Your task to perform on an android device: turn on javascript in the chrome app Image 0: 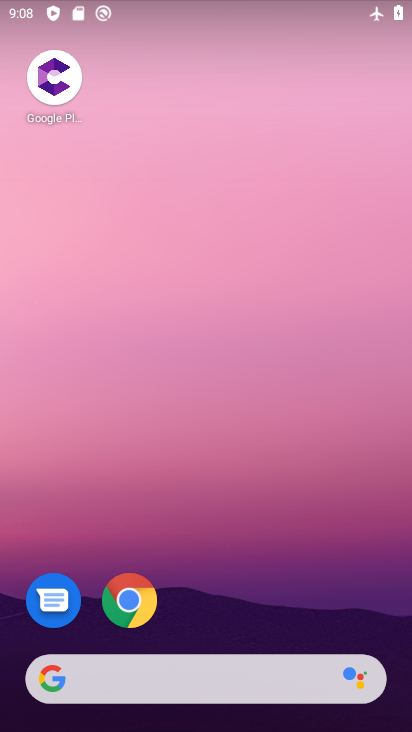
Step 0: drag from (201, 624) to (250, 70)
Your task to perform on an android device: turn on javascript in the chrome app Image 1: 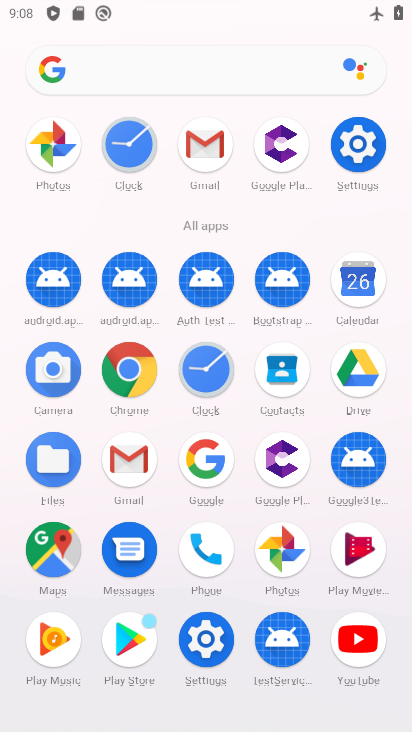
Step 1: click (123, 373)
Your task to perform on an android device: turn on javascript in the chrome app Image 2: 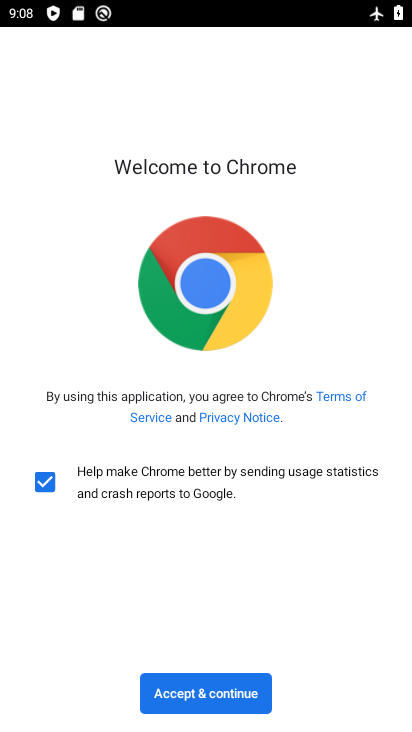
Step 2: click (209, 686)
Your task to perform on an android device: turn on javascript in the chrome app Image 3: 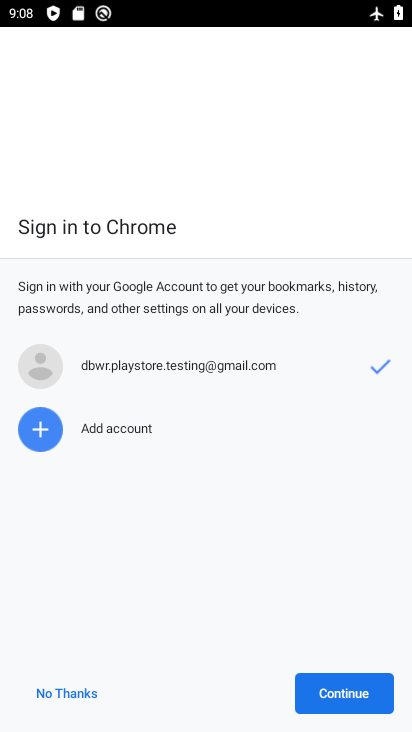
Step 3: click (382, 683)
Your task to perform on an android device: turn on javascript in the chrome app Image 4: 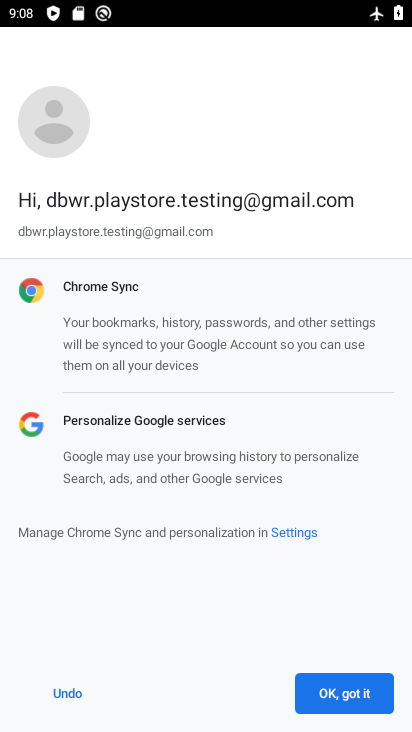
Step 4: click (380, 680)
Your task to perform on an android device: turn on javascript in the chrome app Image 5: 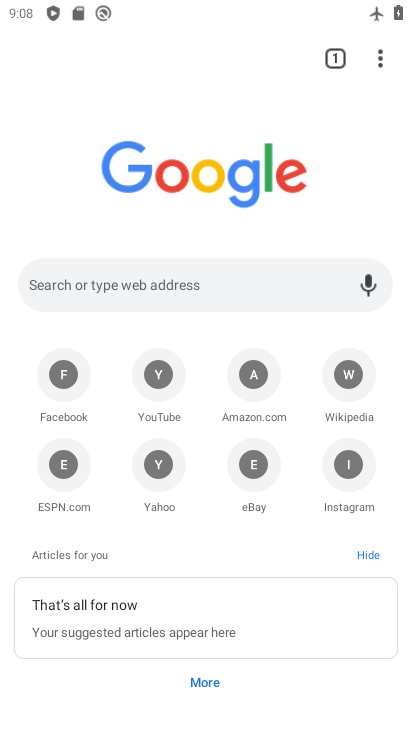
Step 5: click (379, 53)
Your task to perform on an android device: turn on javascript in the chrome app Image 6: 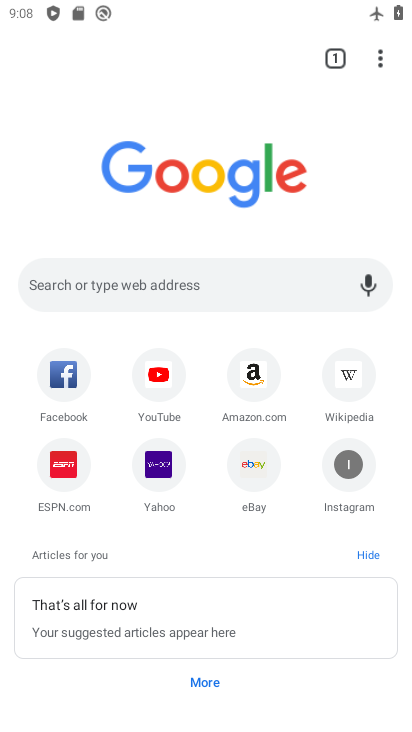
Step 6: drag from (380, 47) to (240, 495)
Your task to perform on an android device: turn on javascript in the chrome app Image 7: 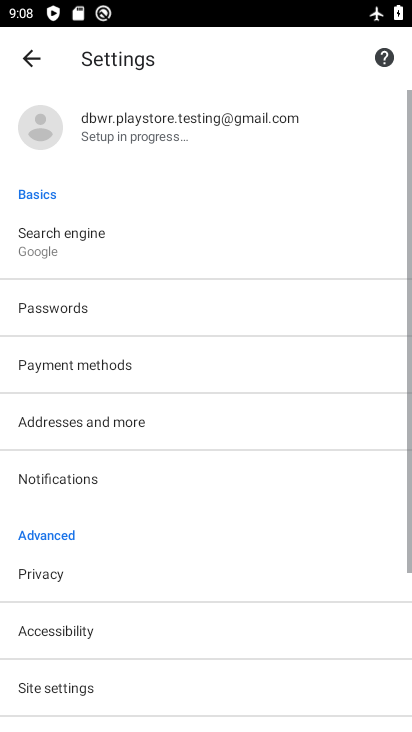
Step 7: drag from (243, 490) to (228, 88)
Your task to perform on an android device: turn on javascript in the chrome app Image 8: 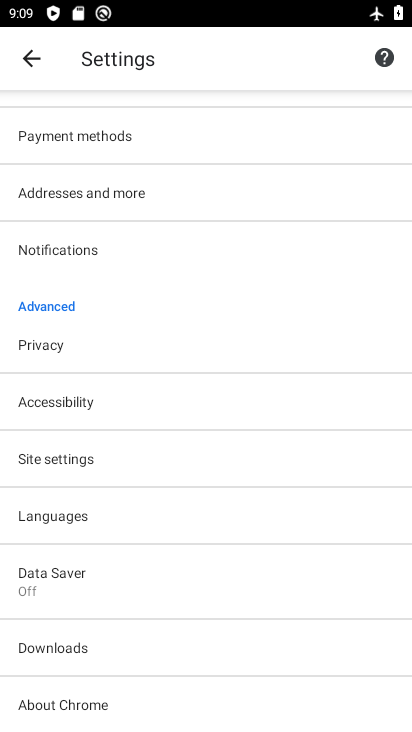
Step 8: click (42, 456)
Your task to perform on an android device: turn on javascript in the chrome app Image 9: 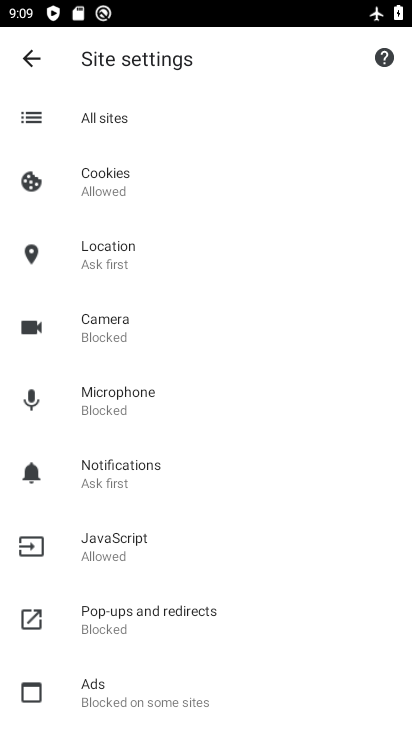
Step 9: drag from (205, 640) to (262, 351)
Your task to perform on an android device: turn on javascript in the chrome app Image 10: 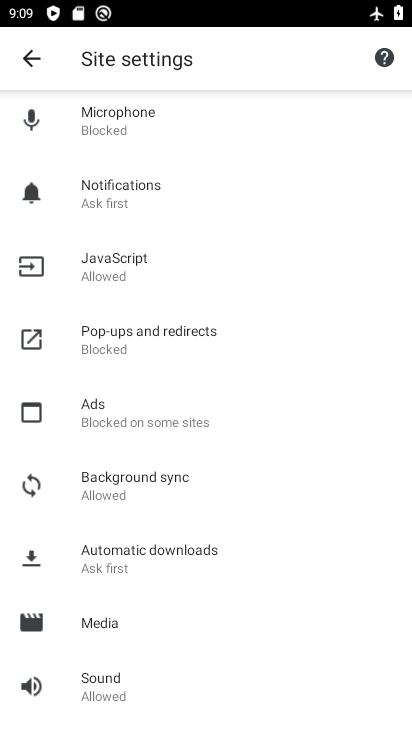
Step 10: click (134, 269)
Your task to perform on an android device: turn on javascript in the chrome app Image 11: 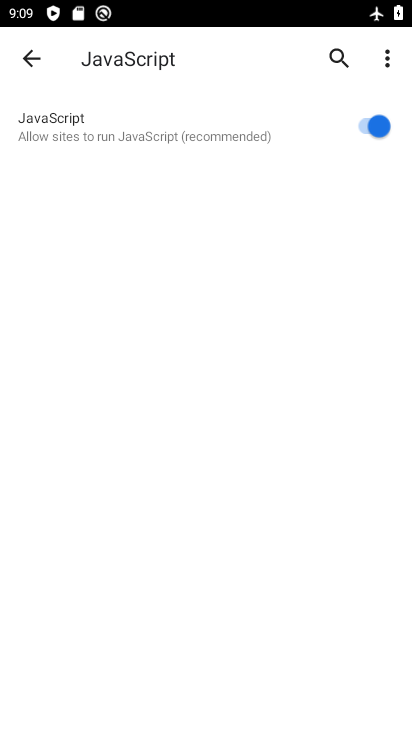
Step 11: task complete